Your task to perform on an android device: set default search engine in the chrome app Image 0: 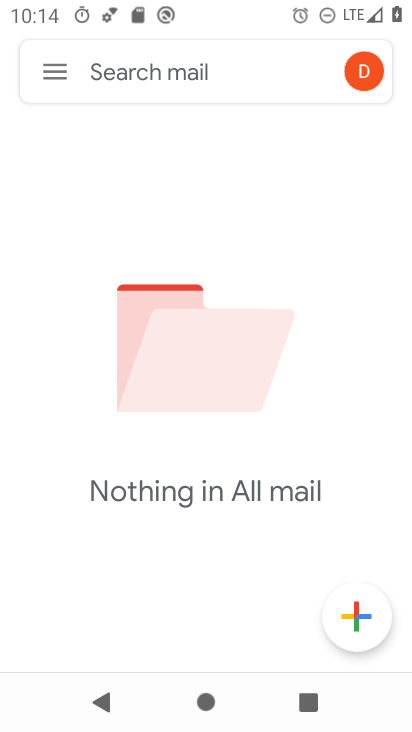
Step 0: press home button
Your task to perform on an android device: set default search engine in the chrome app Image 1: 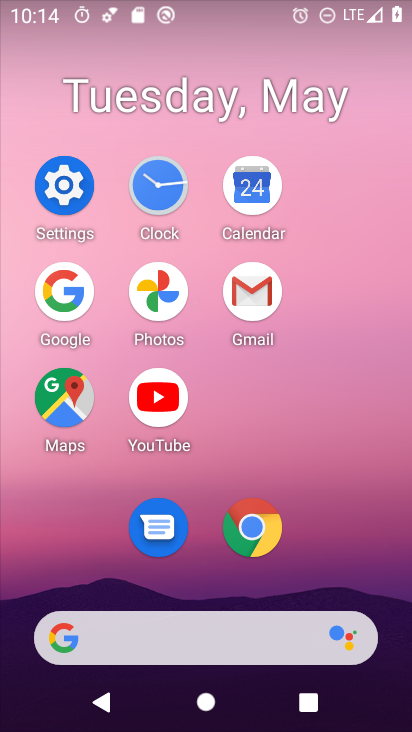
Step 1: click (271, 536)
Your task to perform on an android device: set default search engine in the chrome app Image 2: 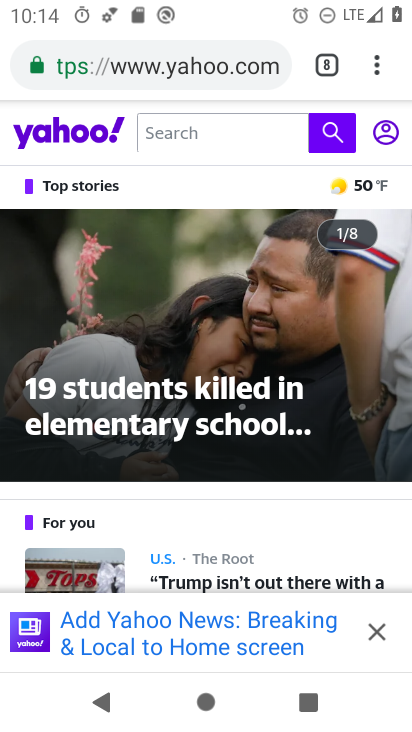
Step 2: click (374, 62)
Your task to perform on an android device: set default search engine in the chrome app Image 3: 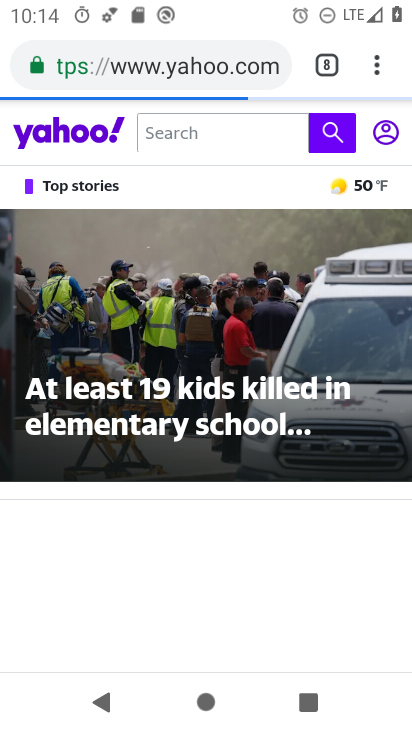
Step 3: click (381, 52)
Your task to perform on an android device: set default search engine in the chrome app Image 4: 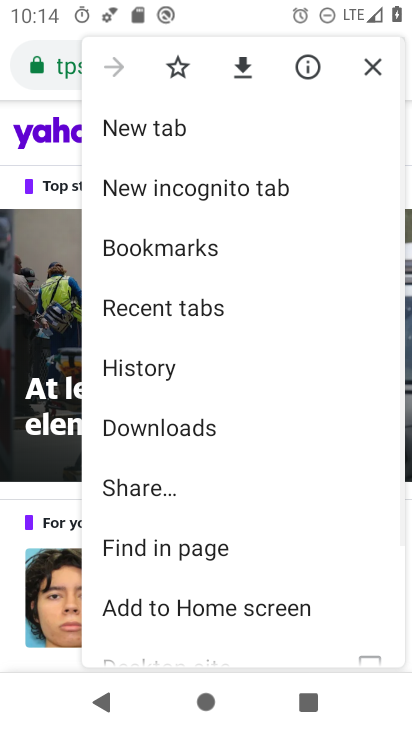
Step 4: drag from (203, 473) to (183, 227)
Your task to perform on an android device: set default search engine in the chrome app Image 5: 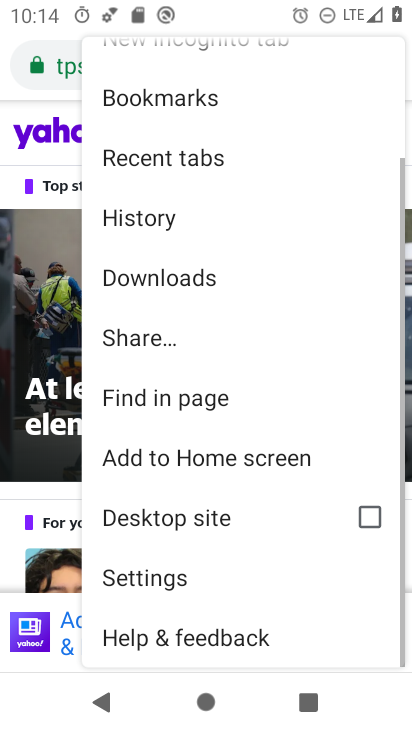
Step 5: click (188, 588)
Your task to perform on an android device: set default search engine in the chrome app Image 6: 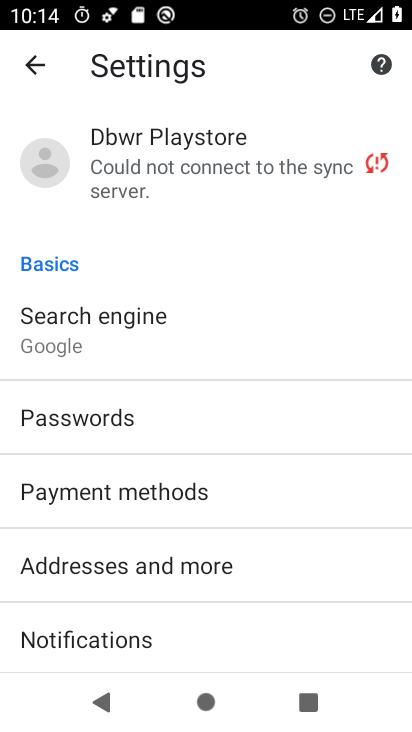
Step 6: click (186, 341)
Your task to perform on an android device: set default search engine in the chrome app Image 7: 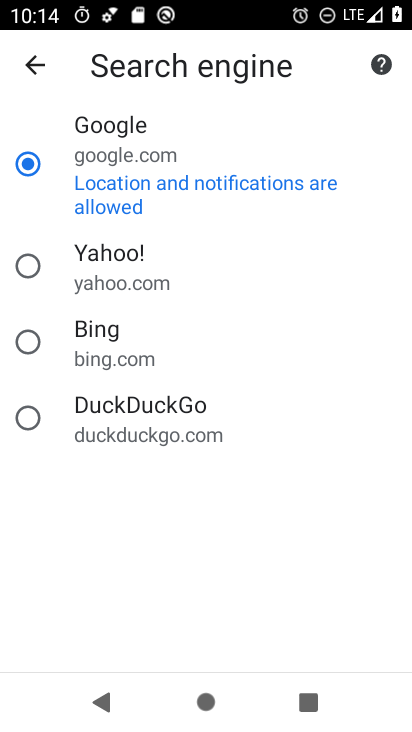
Step 7: task complete